Your task to perform on an android device: What's the weather? Image 0: 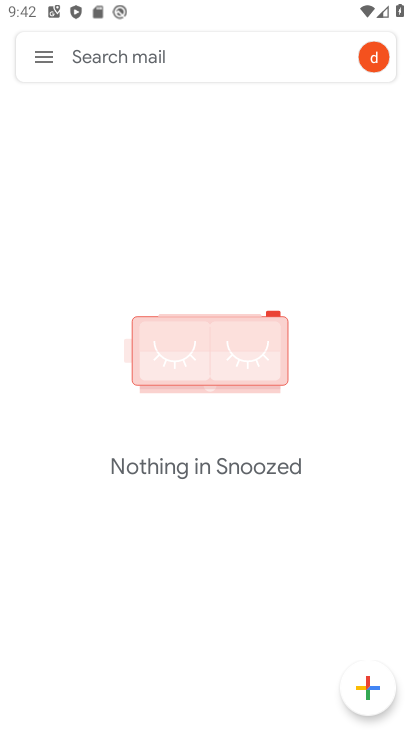
Step 0: press home button
Your task to perform on an android device: What's the weather? Image 1: 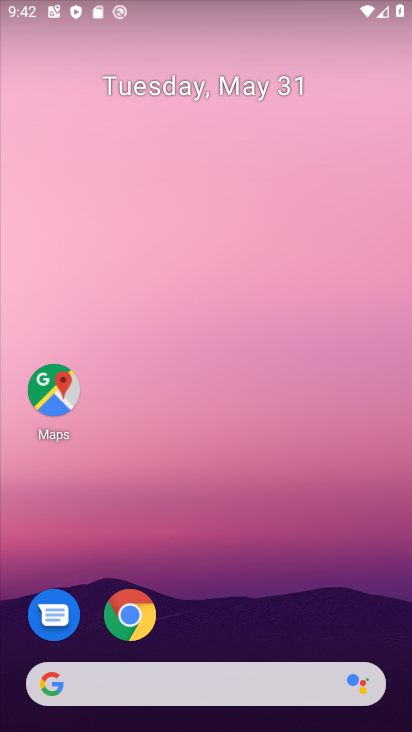
Step 1: click (89, 680)
Your task to perform on an android device: What's the weather? Image 2: 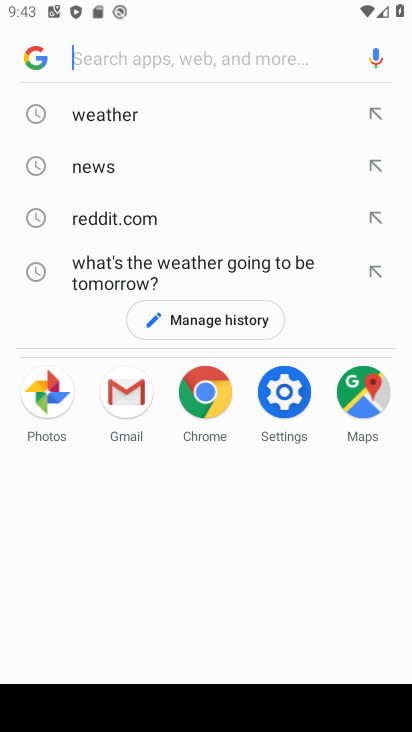
Step 2: type "what's the weather"
Your task to perform on an android device: What's the weather? Image 3: 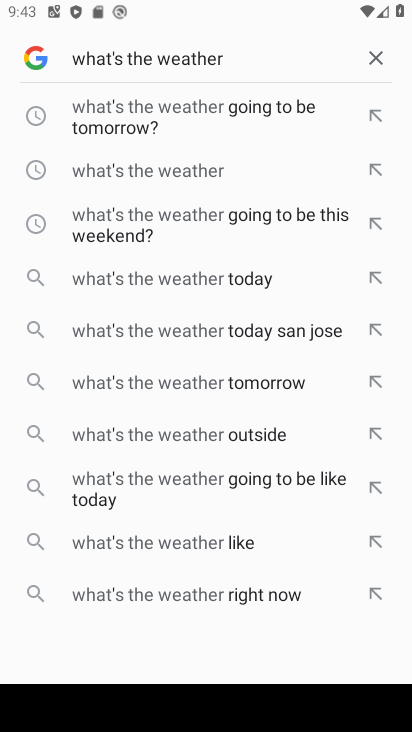
Step 3: click (166, 173)
Your task to perform on an android device: What's the weather? Image 4: 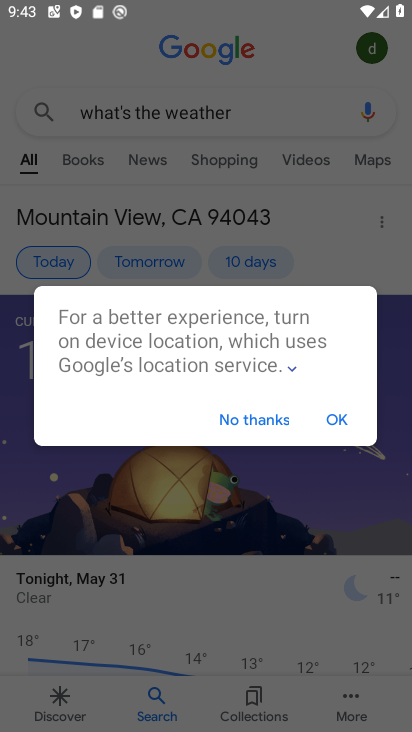
Step 4: click (273, 418)
Your task to perform on an android device: What's the weather? Image 5: 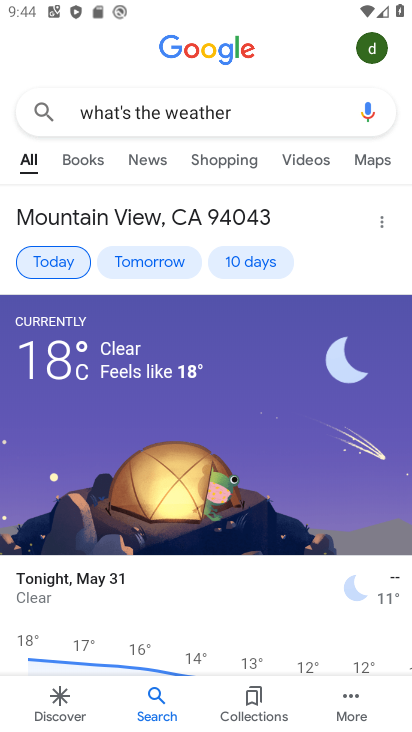
Step 5: task complete